Your task to perform on an android device: change the clock display to digital Image 0: 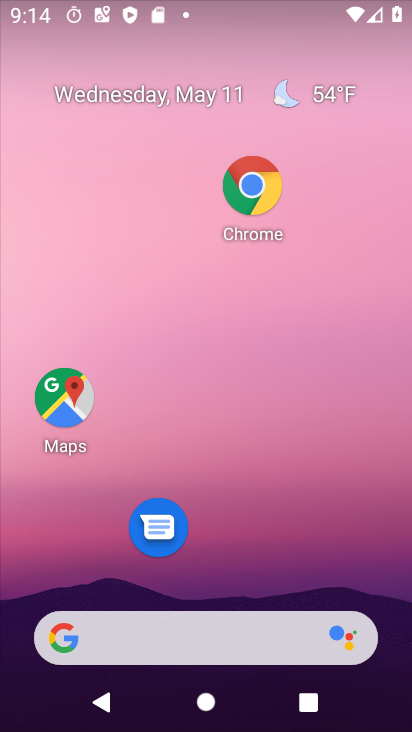
Step 0: drag from (256, 545) to (223, 20)
Your task to perform on an android device: change the clock display to digital Image 1: 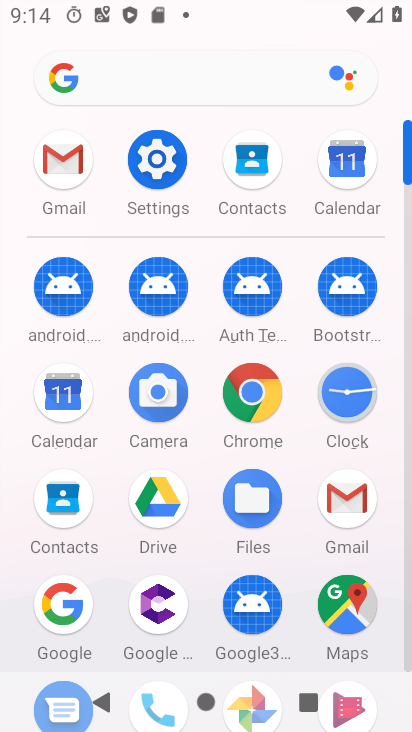
Step 1: click (347, 391)
Your task to perform on an android device: change the clock display to digital Image 2: 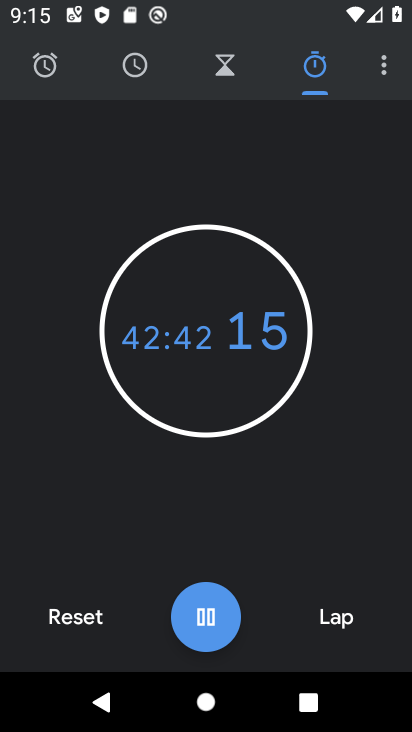
Step 2: click (377, 68)
Your task to perform on an android device: change the clock display to digital Image 3: 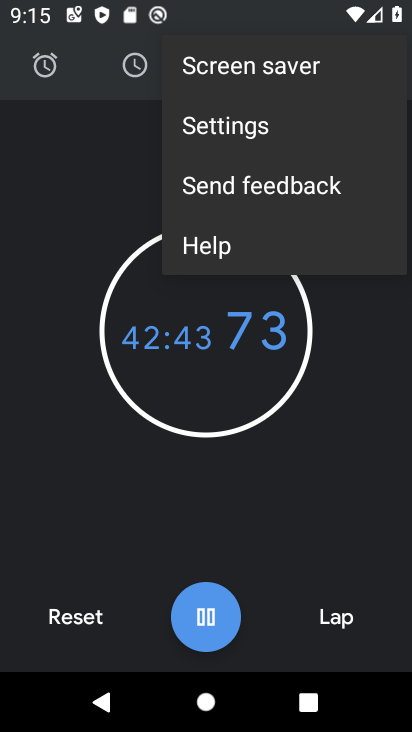
Step 3: click (267, 138)
Your task to perform on an android device: change the clock display to digital Image 4: 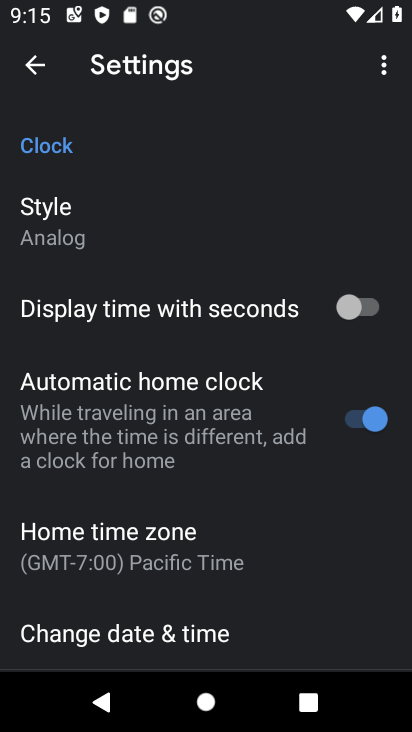
Step 4: click (146, 234)
Your task to perform on an android device: change the clock display to digital Image 5: 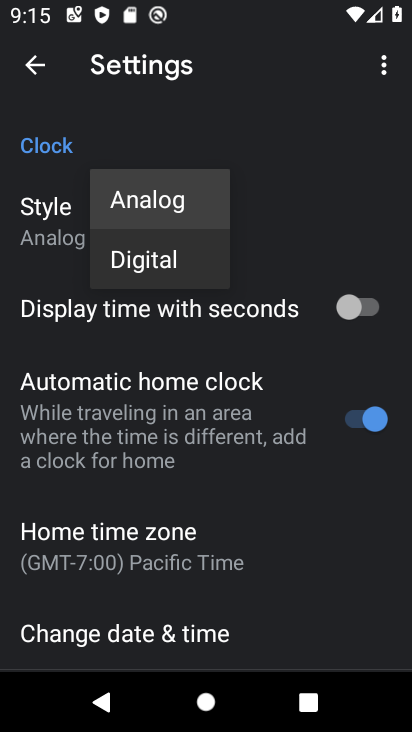
Step 5: click (159, 262)
Your task to perform on an android device: change the clock display to digital Image 6: 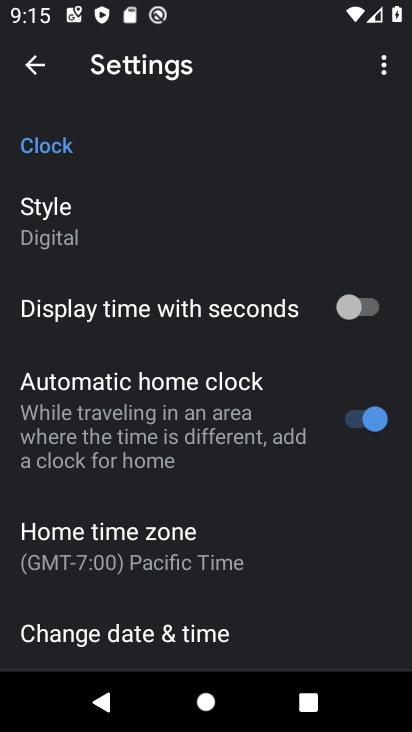
Step 6: task complete